Your task to perform on an android device: turn on notifications settings in the gmail app Image 0: 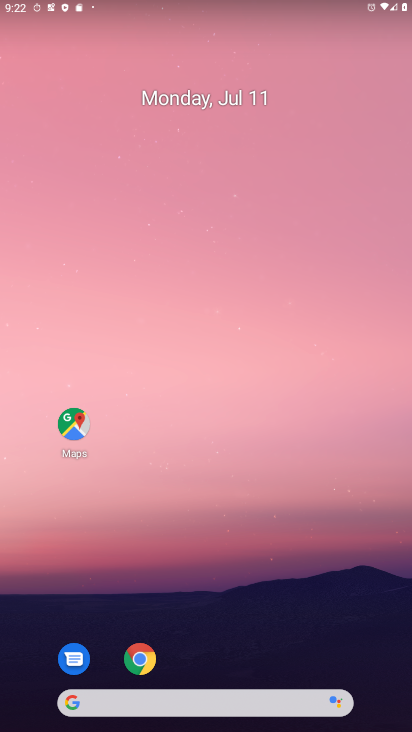
Step 0: click (252, 234)
Your task to perform on an android device: turn on notifications settings in the gmail app Image 1: 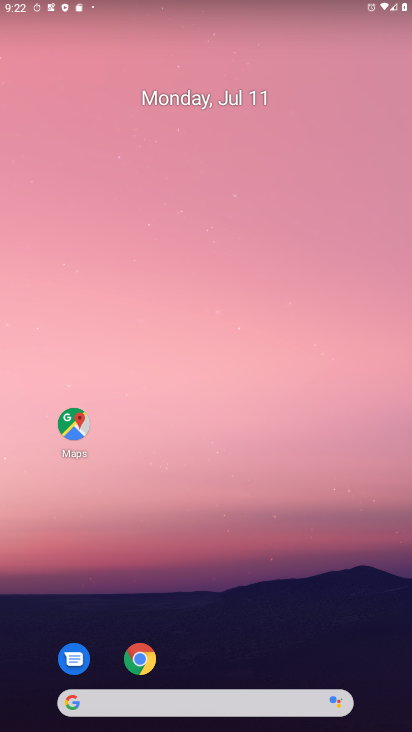
Step 1: drag from (183, 636) to (296, 29)
Your task to perform on an android device: turn on notifications settings in the gmail app Image 2: 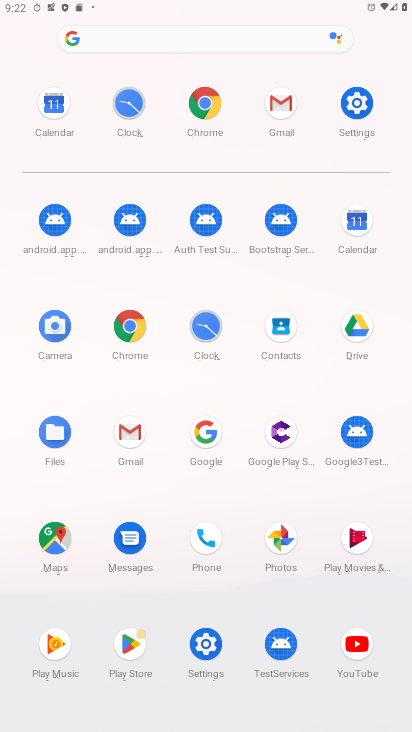
Step 2: click (131, 440)
Your task to perform on an android device: turn on notifications settings in the gmail app Image 3: 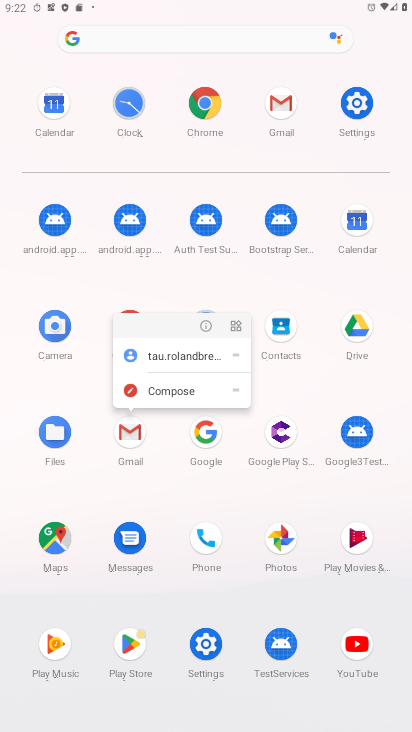
Step 3: click (208, 327)
Your task to perform on an android device: turn on notifications settings in the gmail app Image 4: 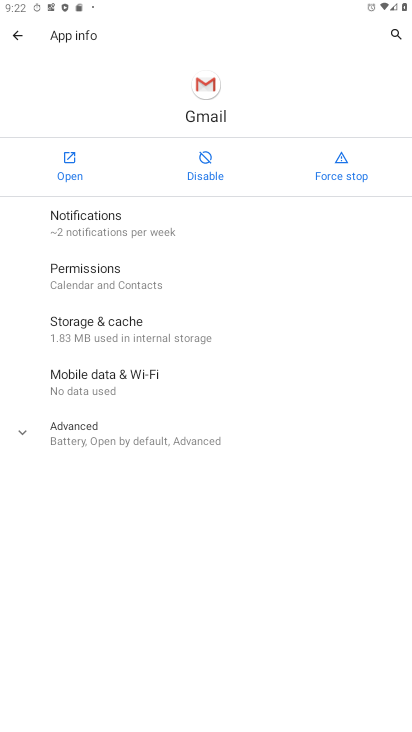
Step 4: click (67, 157)
Your task to perform on an android device: turn on notifications settings in the gmail app Image 5: 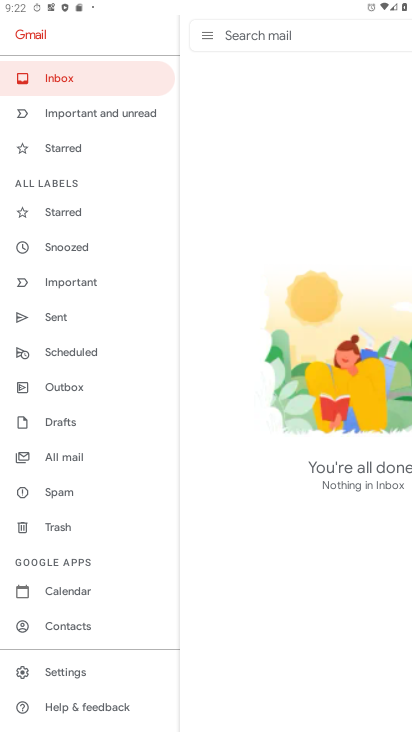
Step 5: click (66, 680)
Your task to perform on an android device: turn on notifications settings in the gmail app Image 6: 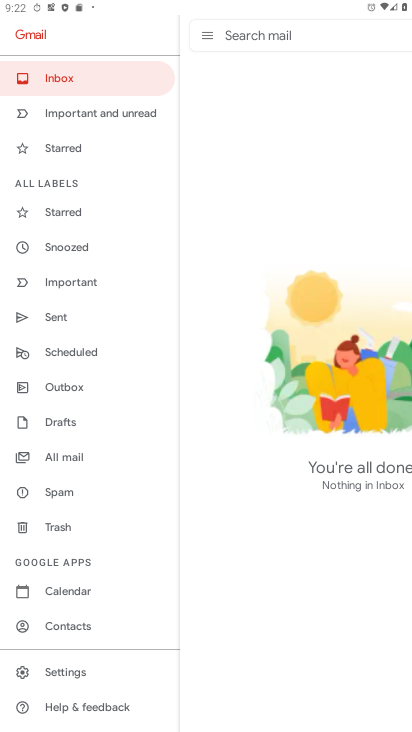
Step 6: click (66, 680)
Your task to perform on an android device: turn on notifications settings in the gmail app Image 7: 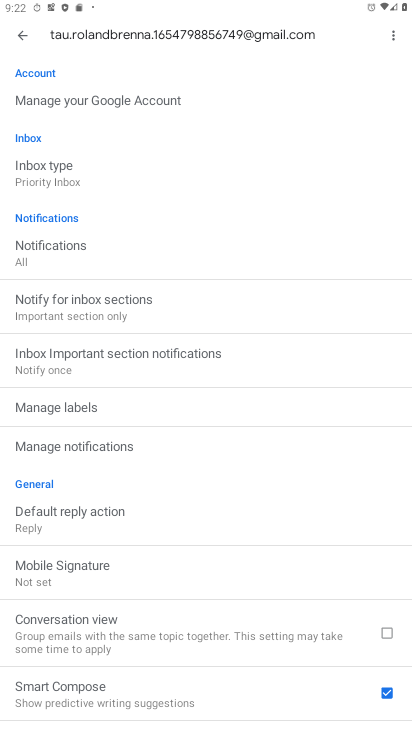
Step 7: click (119, 444)
Your task to perform on an android device: turn on notifications settings in the gmail app Image 8: 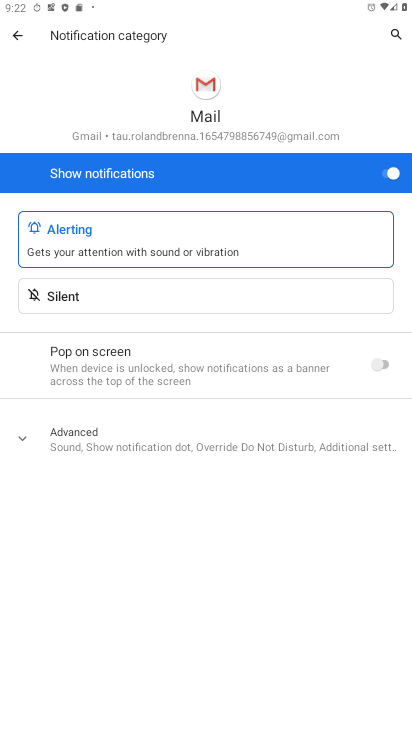
Step 8: task complete